Your task to perform on an android device: turn vacation reply on in the gmail app Image 0: 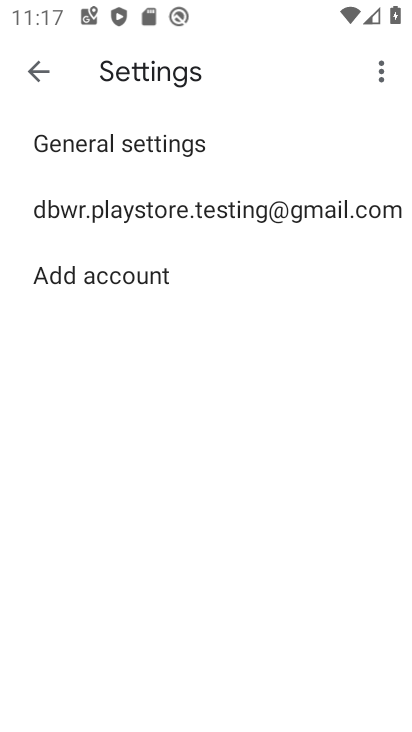
Step 0: click (268, 212)
Your task to perform on an android device: turn vacation reply on in the gmail app Image 1: 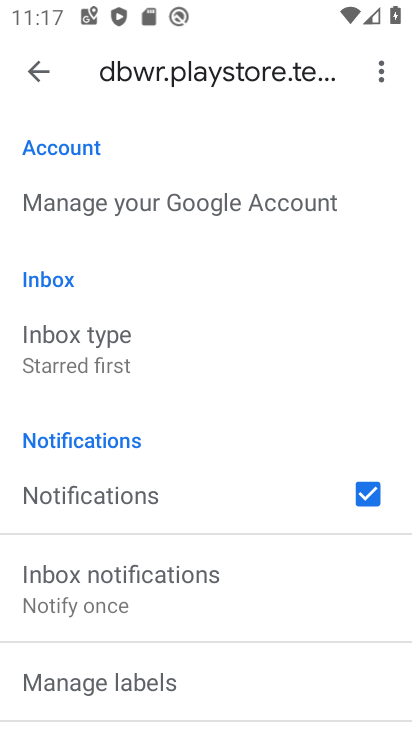
Step 1: drag from (263, 498) to (191, 242)
Your task to perform on an android device: turn vacation reply on in the gmail app Image 2: 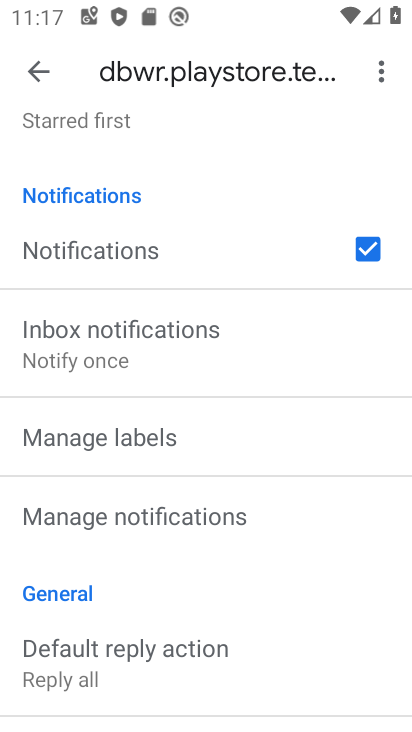
Step 2: drag from (208, 588) to (145, 339)
Your task to perform on an android device: turn vacation reply on in the gmail app Image 3: 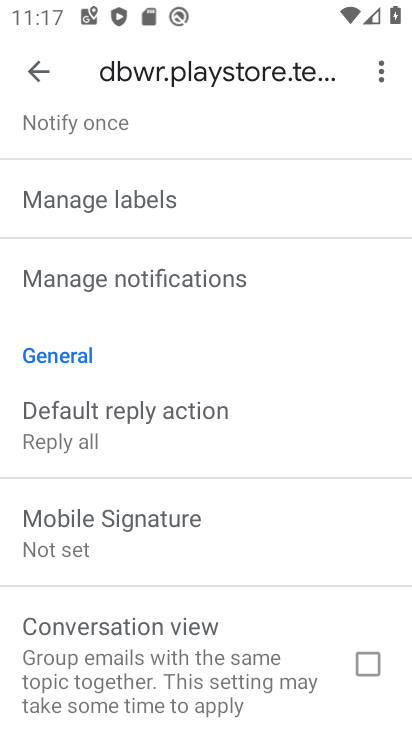
Step 3: drag from (253, 642) to (233, 354)
Your task to perform on an android device: turn vacation reply on in the gmail app Image 4: 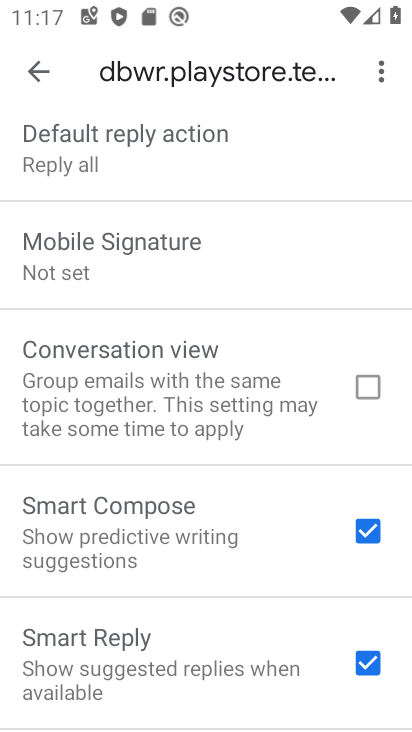
Step 4: drag from (299, 579) to (233, 264)
Your task to perform on an android device: turn vacation reply on in the gmail app Image 5: 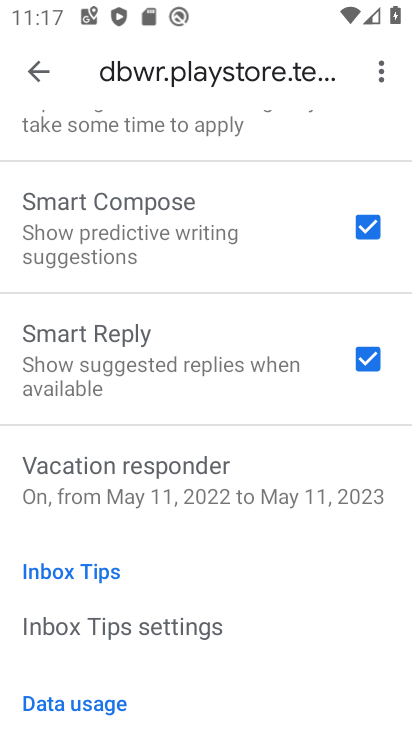
Step 5: click (259, 480)
Your task to perform on an android device: turn vacation reply on in the gmail app Image 6: 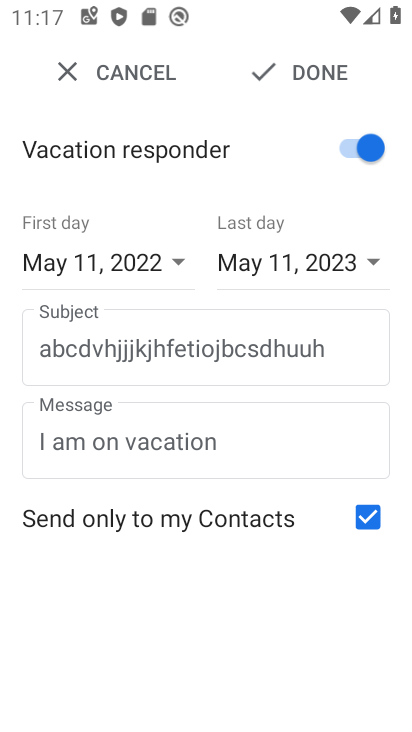
Step 6: task complete